Your task to perform on an android device: Open settings Image 0: 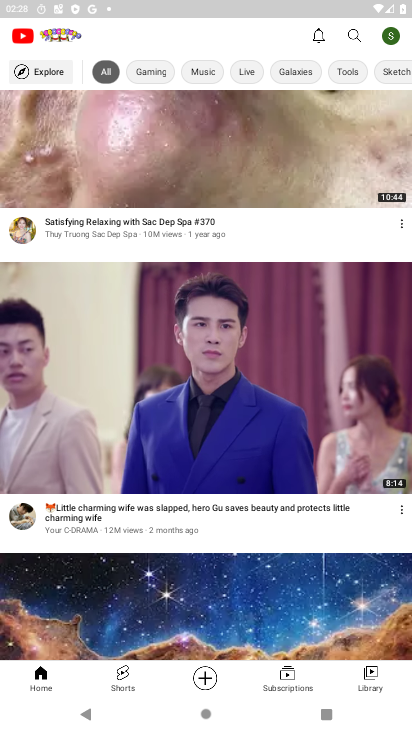
Step 0: drag from (212, 230) to (320, 16)
Your task to perform on an android device: Open settings Image 1: 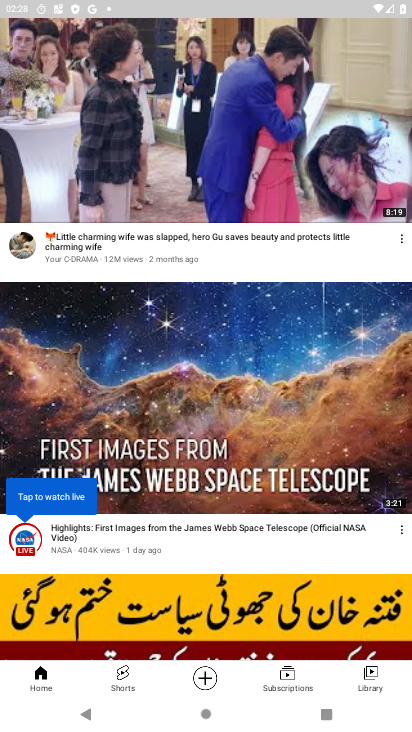
Step 1: press home button
Your task to perform on an android device: Open settings Image 2: 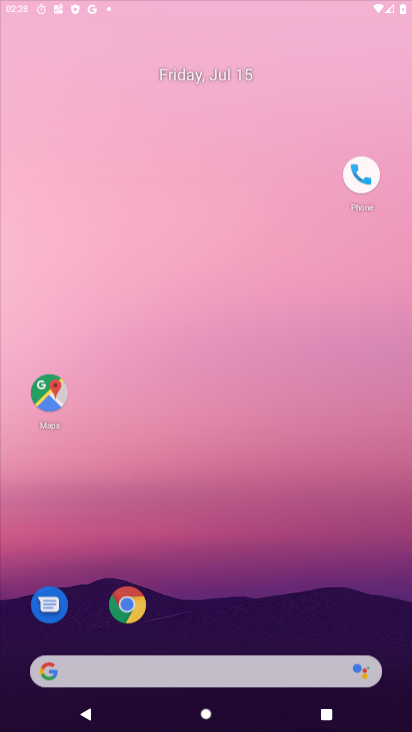
Step 2: drag from (140, 540) to (397, 9)
Your task to perform on an android device: Open settings Image 3: 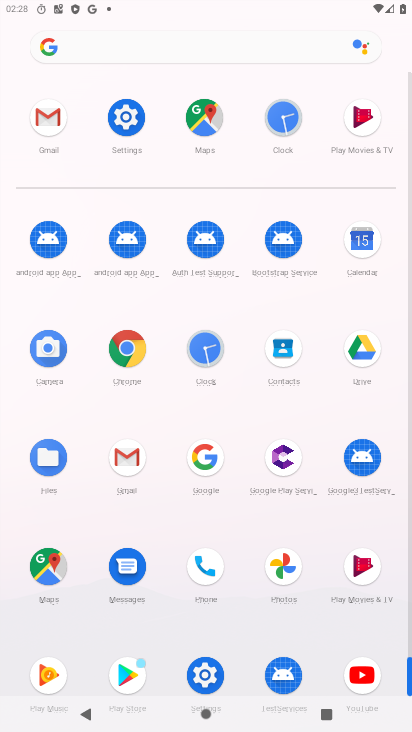
Step 3: click (122, 98)
Your task to perform on an android device: Open settings Image 4: 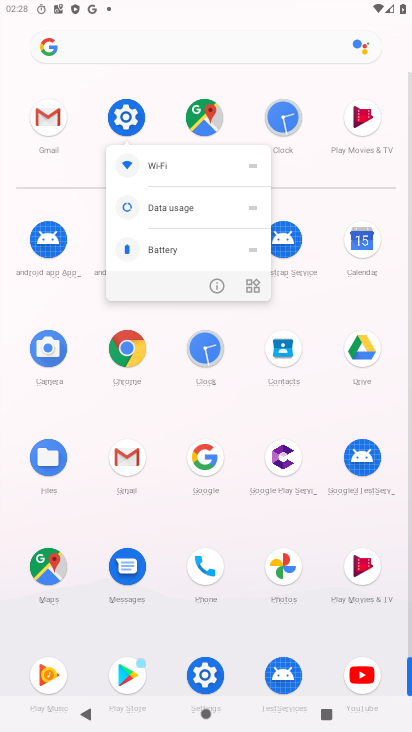
Step 4: click (216, 290)
Your task to perform on an android device: Open settings Image 5: 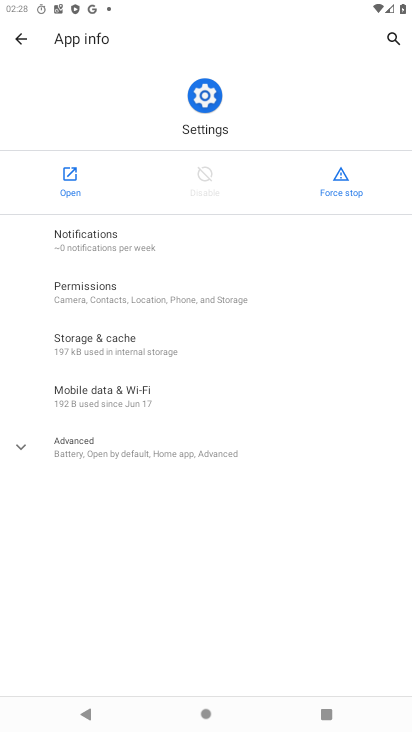
Step 5: click (80, 183)
Your task to perform on an android device: Open settings Image 6: 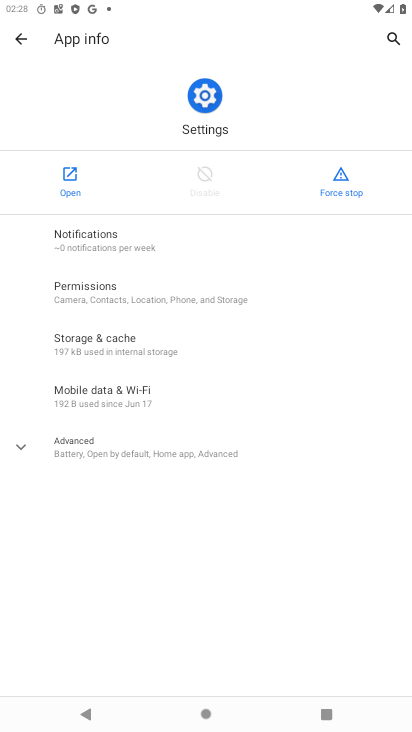
Step 6: click (80, 183)
Your task to perform on an android device: Open settings Image 7: 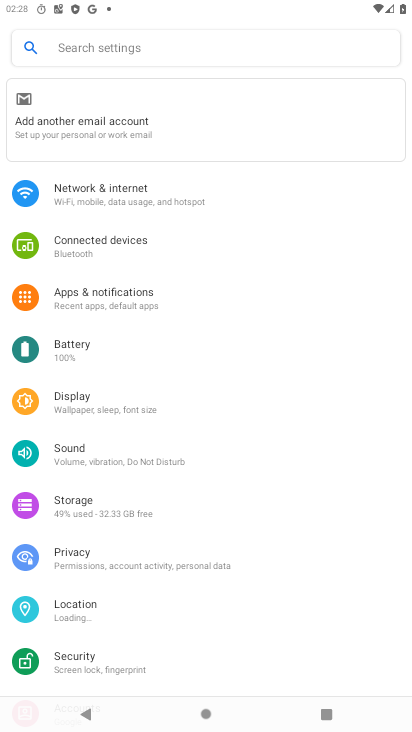
Step 7: task complete